Your task to perform on an android device: turn pop-ups on in chrome Image 0: 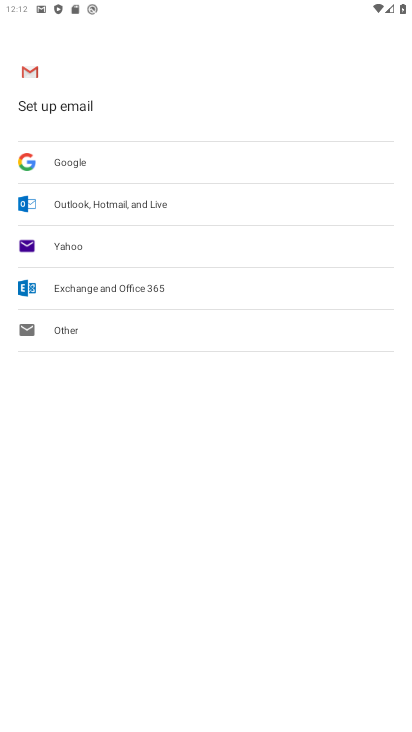
Step 0: press home button
Your task to perform on an android device: turn pop-ups on in chrome Image 1: 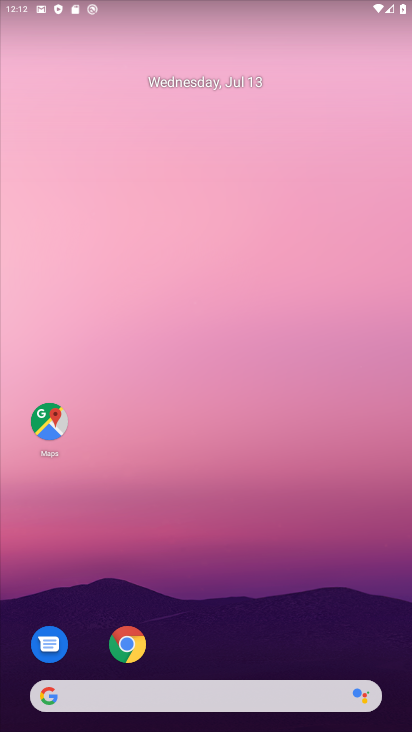
Step 1: click (120, 646)
Your task to perform on an android device: turn pop-ups on in chrome Image 2: 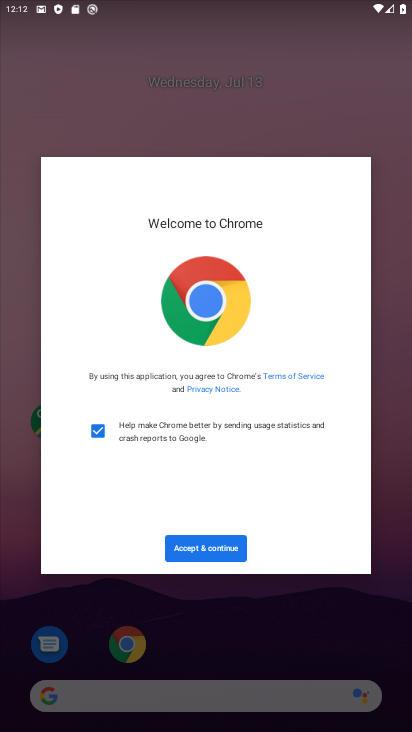
Step 2: click (205, 547)
Your task to perform on an android device: turn pop-ups on in chrome Image 3: 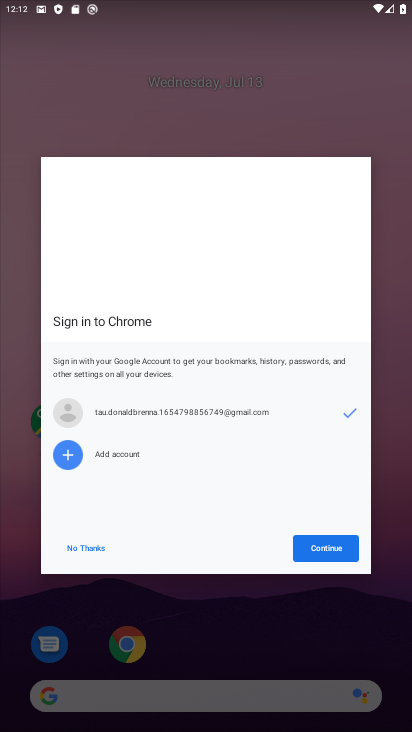
Step 3: click (331, 535)
Your task to perform on an android device: turn pop-ups on in chrome Image 4: 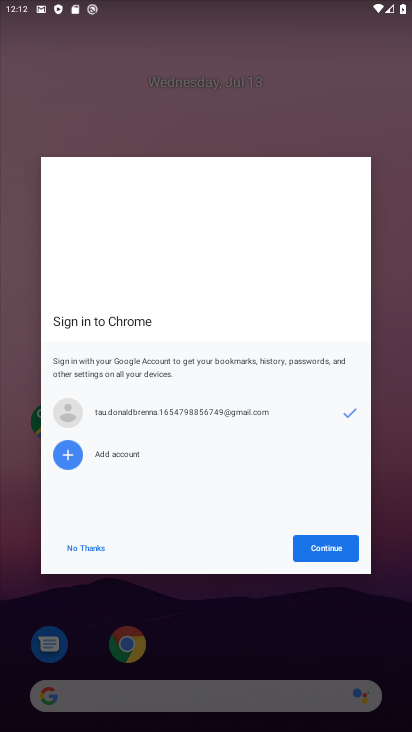
Step 4: click (306, 545)
Your task to perform on an android device: turn pop-ups on in chrome Image 5: 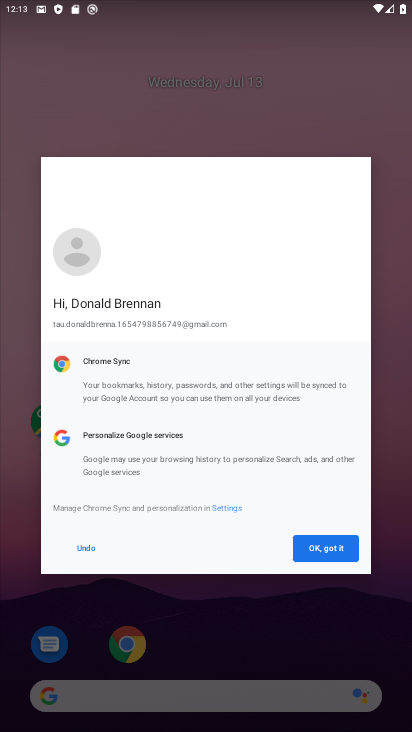
Step 5: click (306, 545)
Your task to perform on an android device: turn pop-ups on in chrome Image 6: 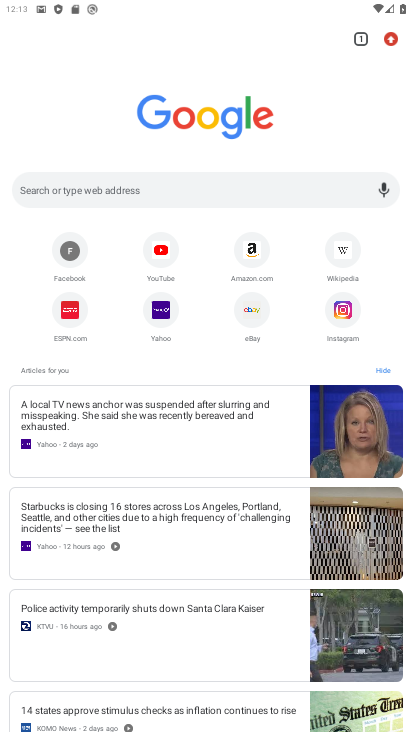
Step 6: click (389, 34)
Your task to perform on an android device: turn pop-ups on in chrome Image 7: 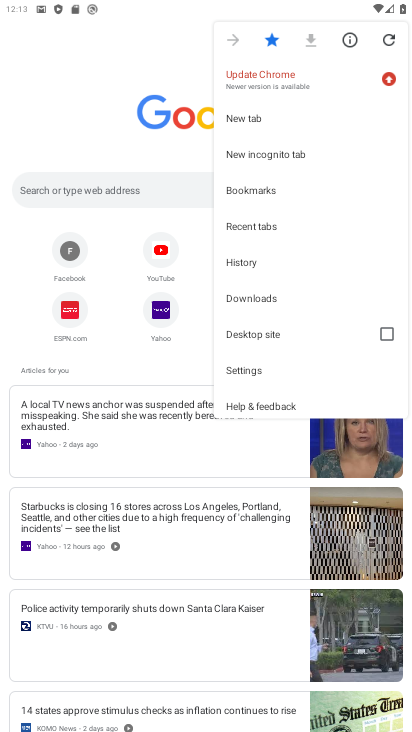
Step 7: click (250, 372)
Your task to perform on an android device: turn pop-ups on in chrome Image 8: 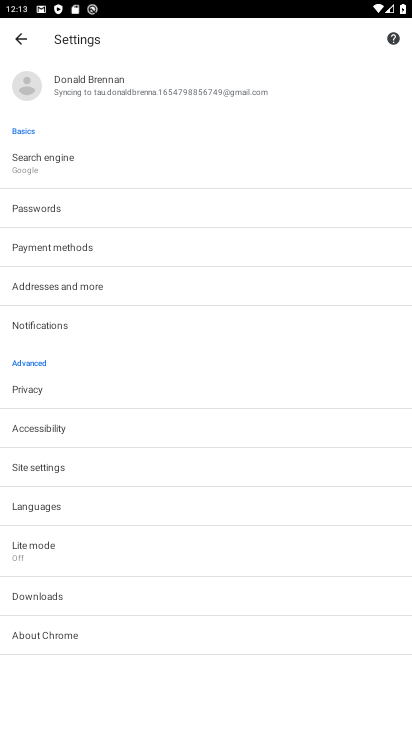
Step 8: click (40, 471)
Your task to perform on an android device: turn pop-ups on in chrome Image 9: 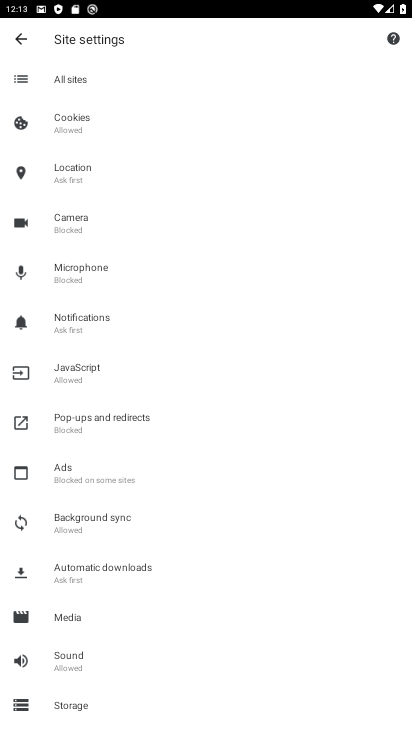
Step 9: click (118, 430)
Your task to perform on an android device: turn pop-ups on in chrome Image 10: 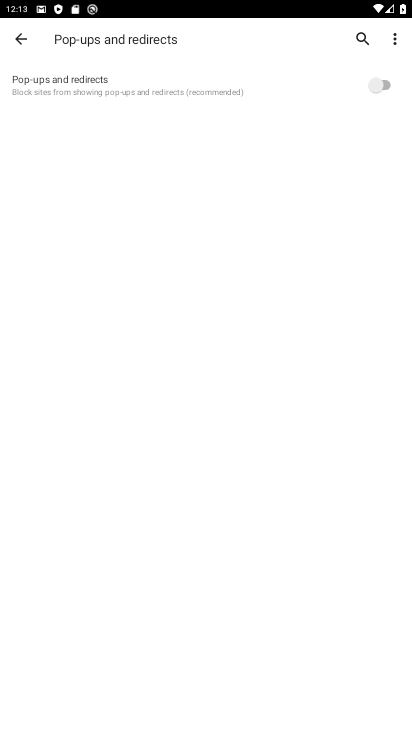
Step 10: click (385, 84)
Your task to perform on an android device: turn pop-ups on in chrome Image 11: 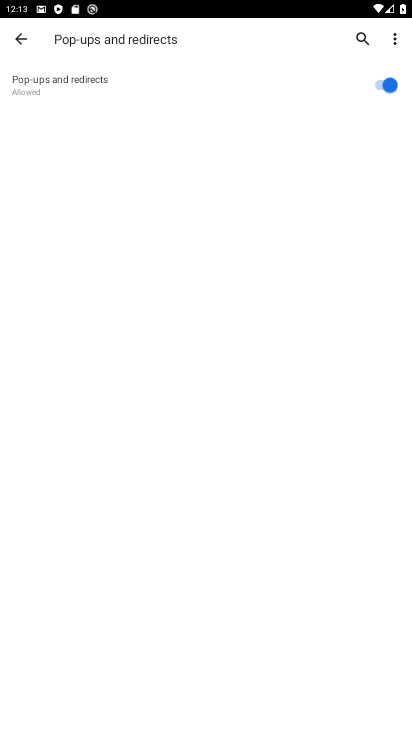
Step 11: task complete